Your task to perform on an android device: set the timer Image 0: 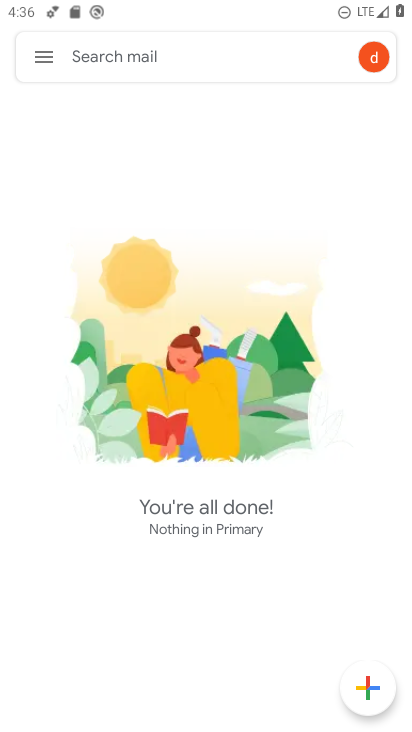
Step 0: press home button
Your task to perform on an android device: set the timer Image 1: 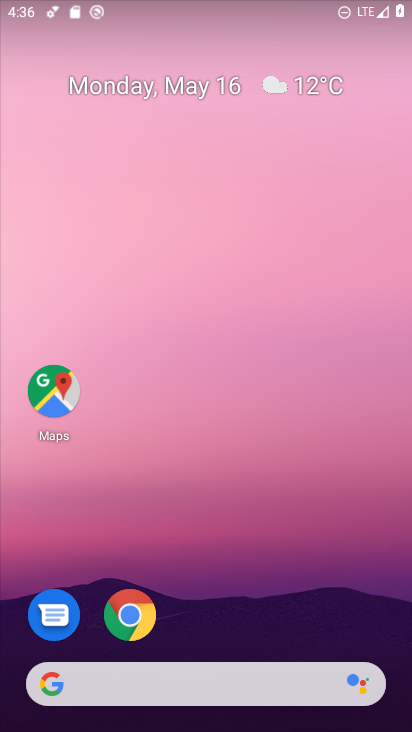
Step 1: drag from (179, 722) to (162, 202)
Your task to perform on an android device: set the timer Image 2: 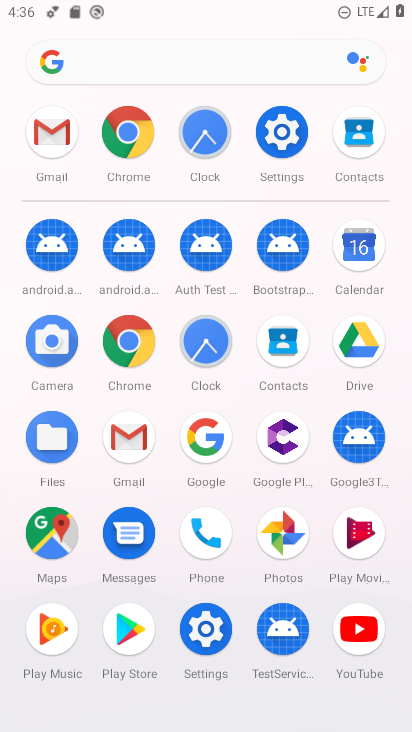
Step 2: click (207, 352)
Your task to perform on an android device: set the timer Image 3: 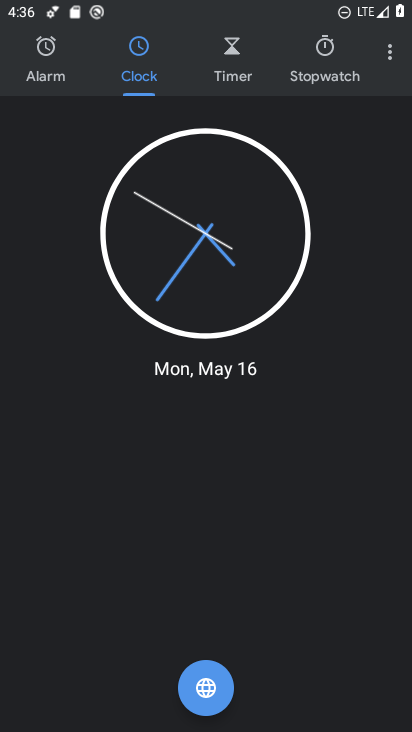
Step 3: click (241, 68)
Your task to perform on an android device: set the timer Image 4: 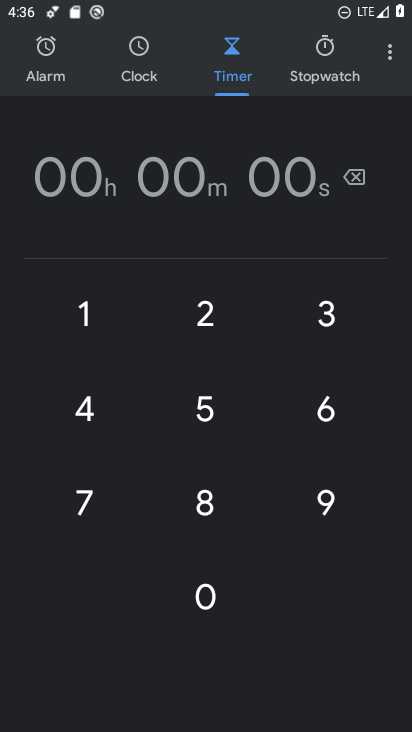
Step 4: click (201, 317)
Your task to perform on an android device: set the timer Image 5: 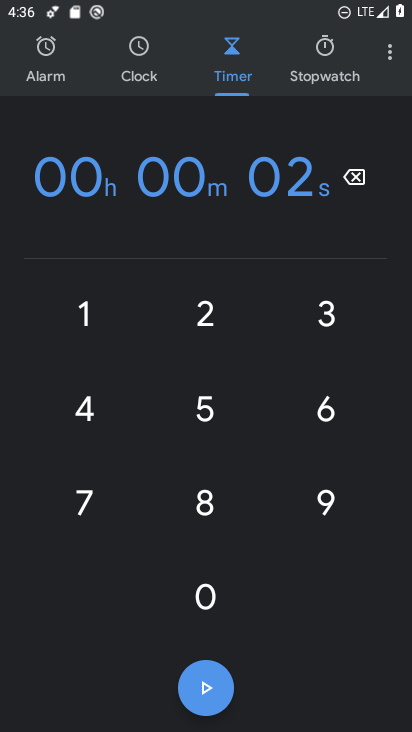
Step 5: click (87, 318)
Your task to perform on an android device: set the timer Image 6: 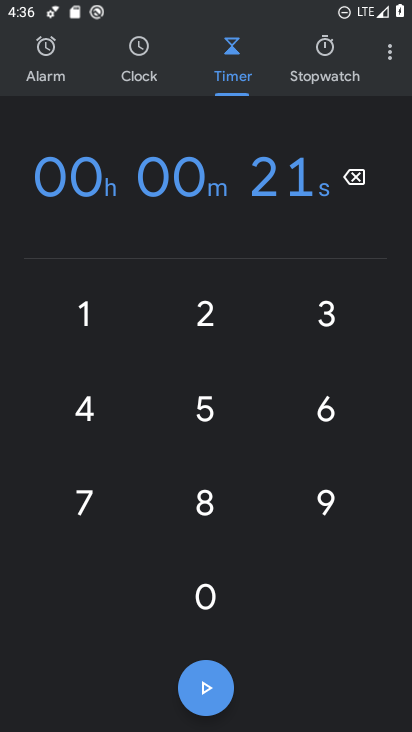
Step 6: click (86, 410)
Your task to perform on an android device: set the timer Image 7: 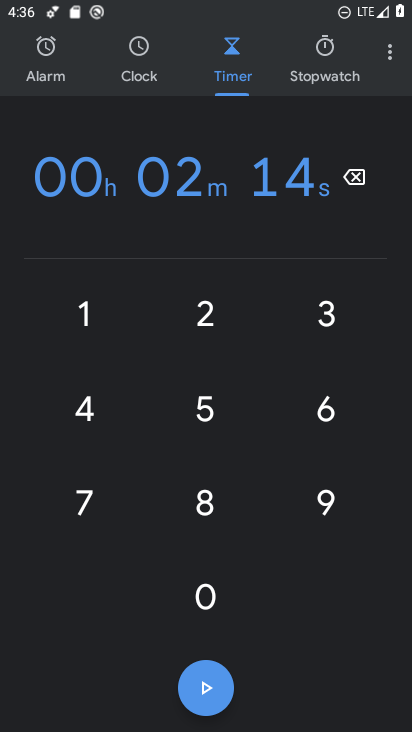
Step 7: click (210, 692)
Your task to perform on an android device: set the timer Image 8: 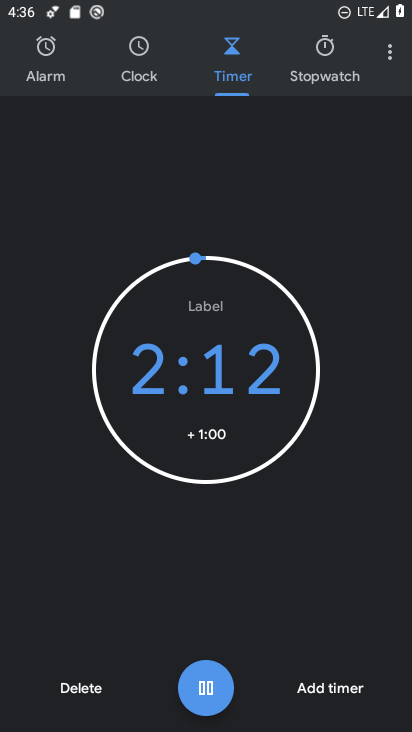
Step 8: task complete